Your task to perform on an android device: Open the phone app and click the voicemail tab. Image 0: 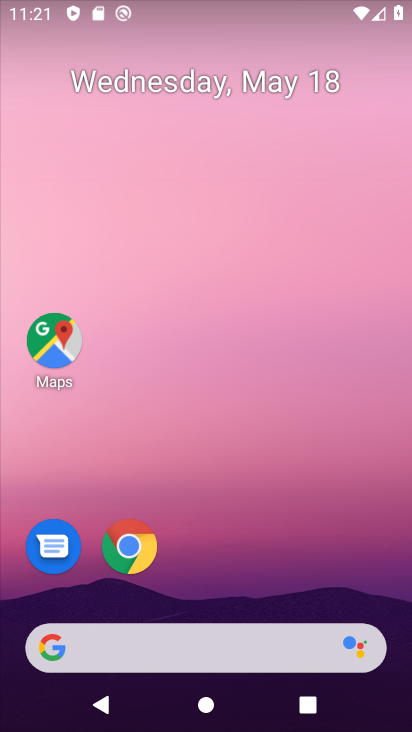
Step 0: drag from (393, 694) to (384, 442)
Your task to perform on an android device: Open the phone app and click the voicemail tab. Image 1: 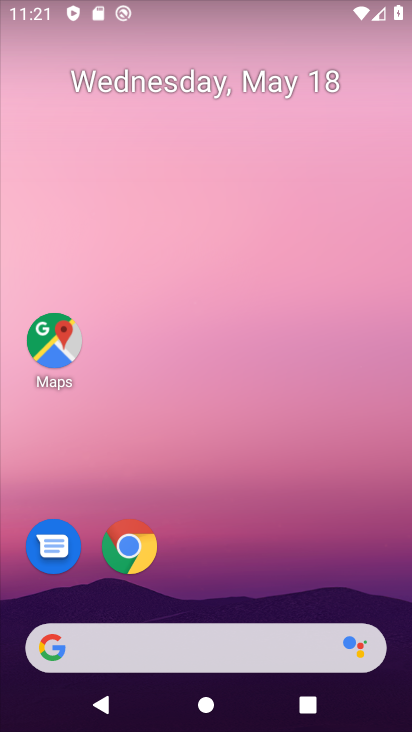
Step 1: drag from (395, 615) to (365, 170)
Your task to perform on an android device: Open the phone app and click the voicemail tab. Image 2: 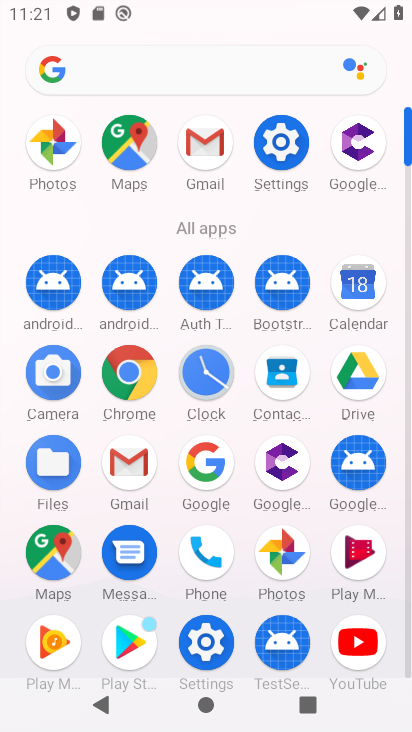
Step 2: click (200, 561)
Your task to perform on an android device: Open the phone app and click the voicemail tab. Image 3: 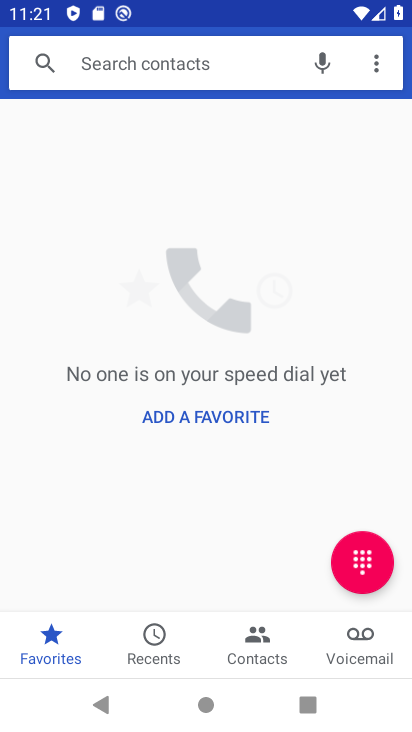
Step 3: click (357, 636)
Your task to perform on an android device: Open the phone app and click the voicemail tab. Image 4: 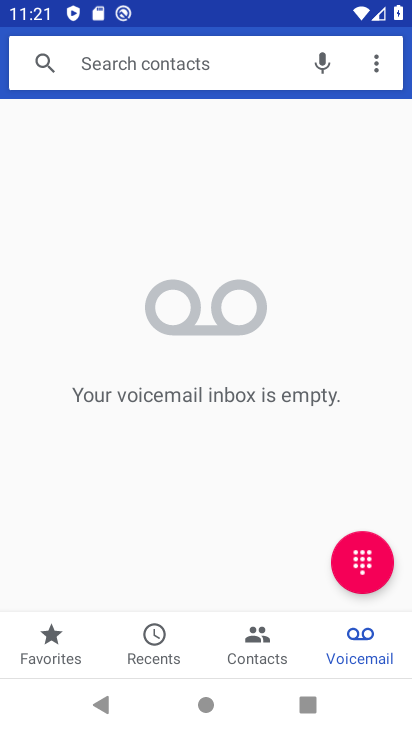
Step 4: task complete